Your task to perform on an android device: snooze an email in the gmail app Image 0: 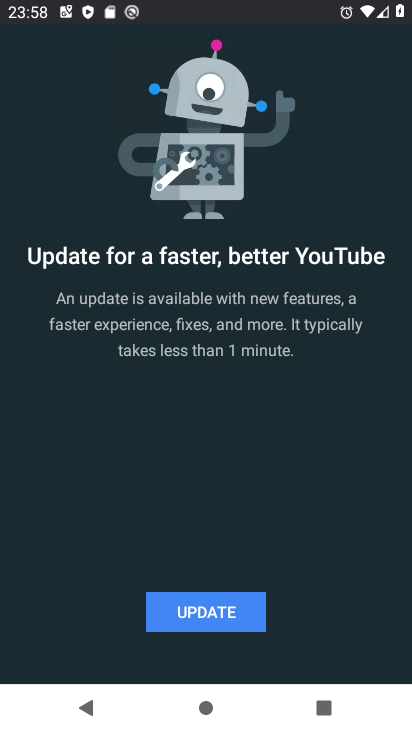
Step 0: press home button
Your task to perform on an android device: snooze an email in the gmail app Image 1: 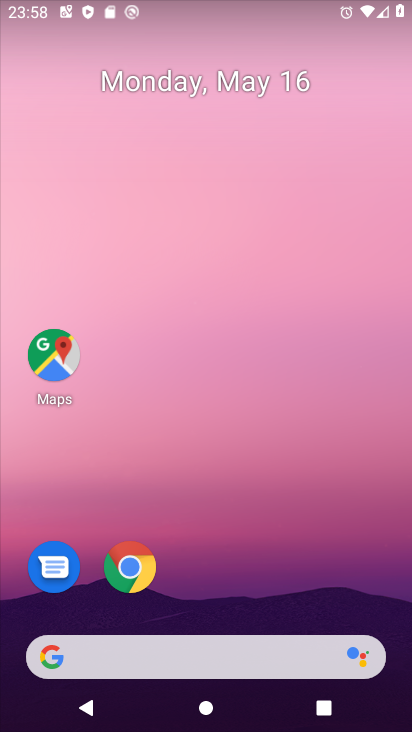
Step 1: drag from (283, 535) to (233, 95)
Your task to perform on an android device: snooze an email in the gmail app Image 2: 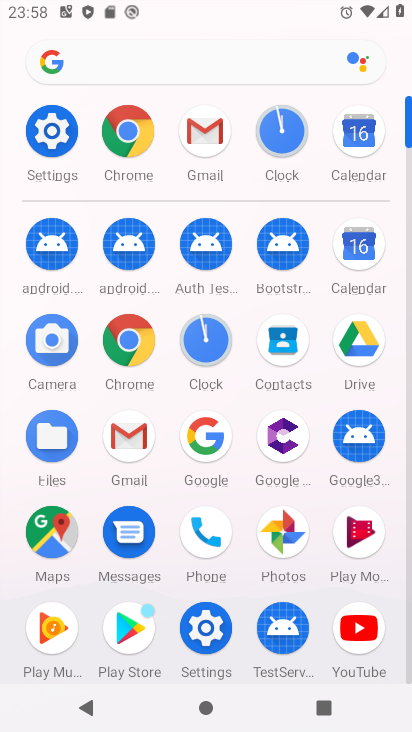
Step 2: click (121, 432)
Your task to perform on an android device: snooze an email in the gmail app Image 3: 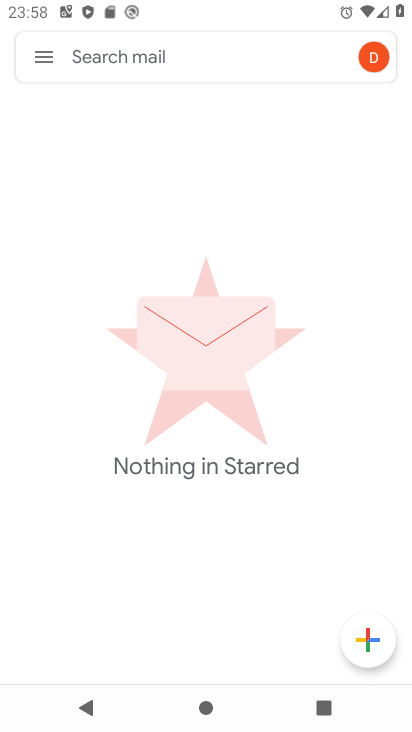
Step 3: click (47, 53)
Your task to perform on an android device: snooze an email in the gmail app Image 4: 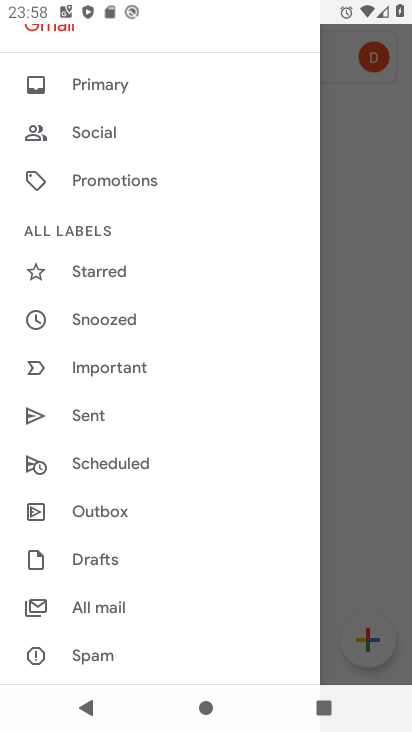
Step 4: click (107, 600)
Your task to perform on an android device: snooze an email in the gmail app Image 5: 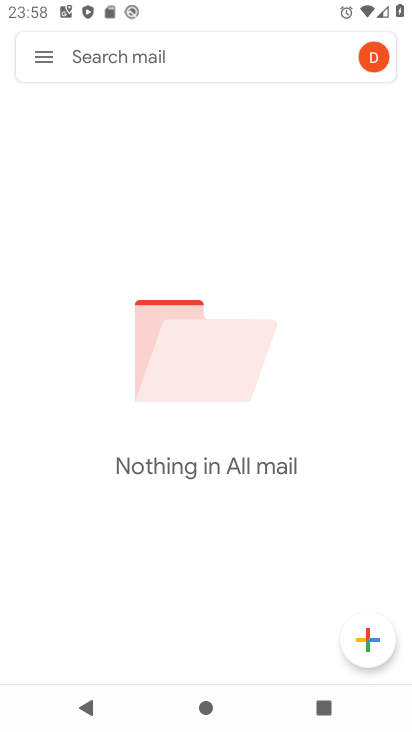
Step 5: task complete